Your task to perform on an android device: Do I have any events today? Image 0: 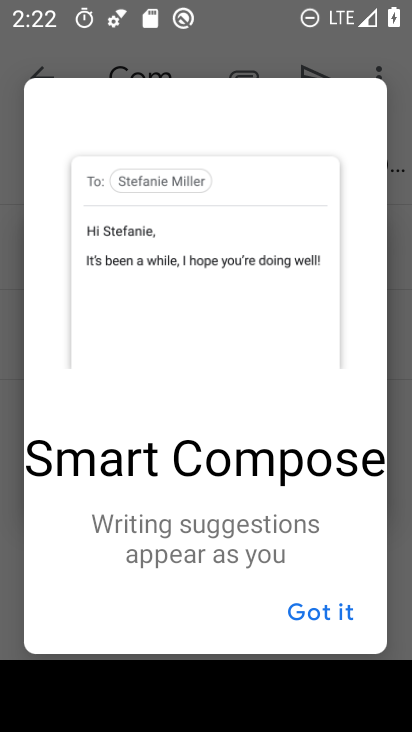
Step 0: press home button
Your task to perform on an android device: Do I have any events today? Image 1: 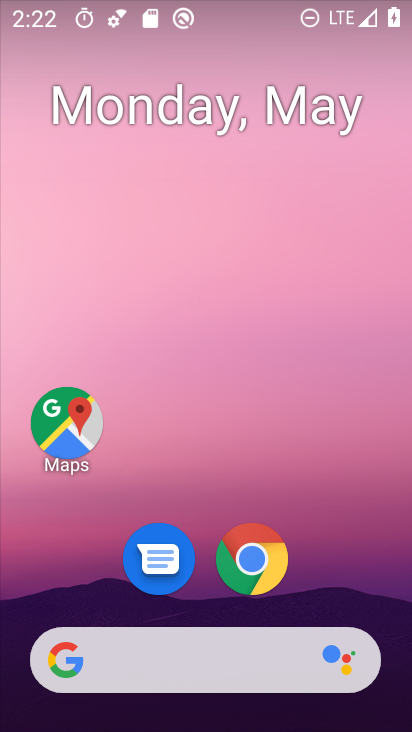
Step 1: drag from (360, 613) to (353, 3)
Your task to perform on an android device: Do I have any events today? Image 2: 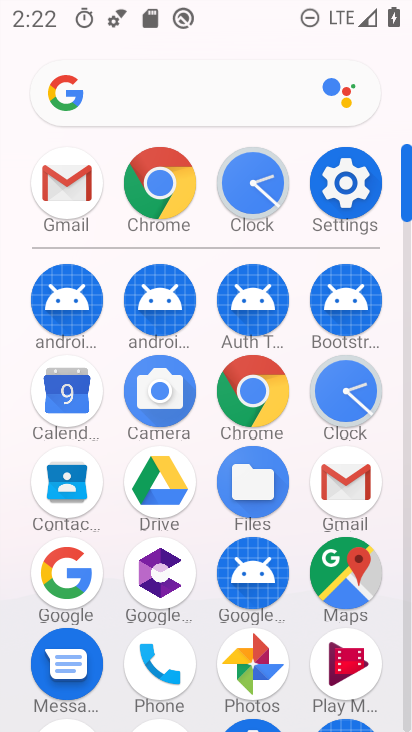
Step 2: click (57, 395)
Your task to perform on an android device: Do I have any events today? Image 3: 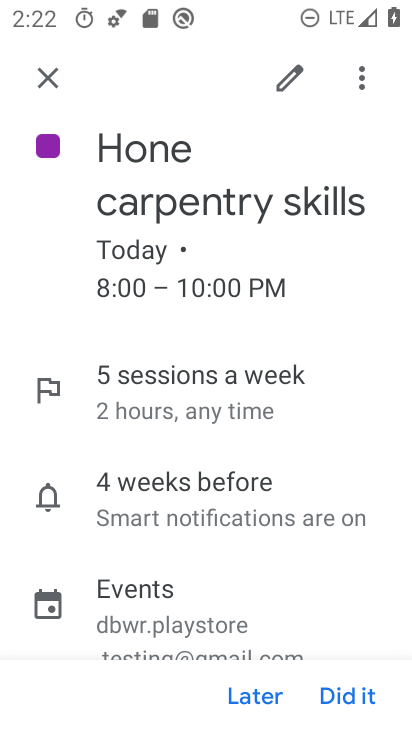
Step 3: click (46, 83)
Your task to perform on an android device: Do I have any events today? Image 4: 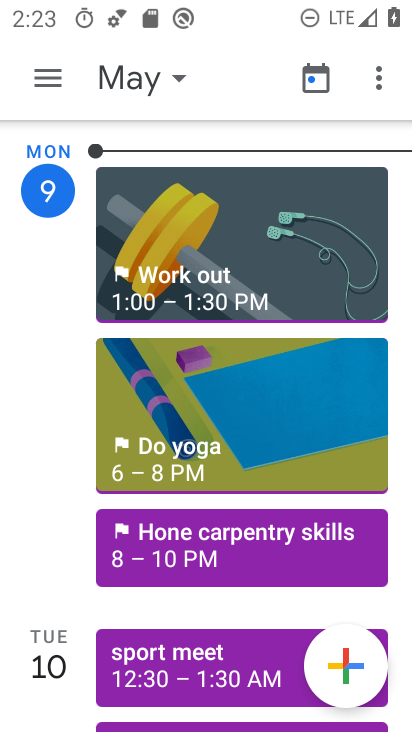
Step 4: click (186, 530)
Your task to perform on an android device: Do I have any events today? Image 5: 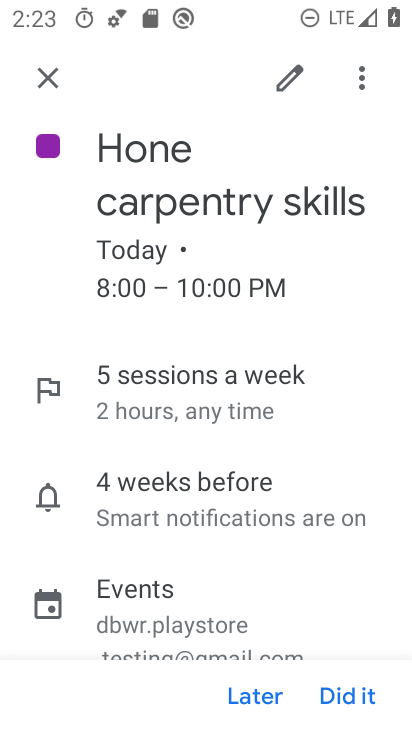
Step 5: task complete